Your task to perform on an android device: open device folders in google photos Image 0: 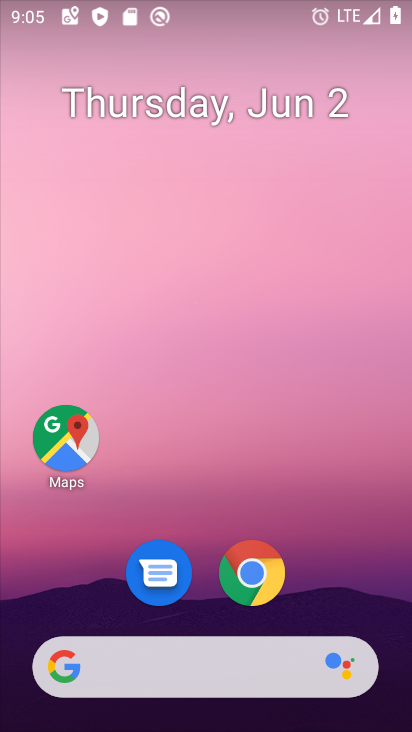
Step 0: press home button
Your task to perform on an android device: open device folders in google photos Image 1: 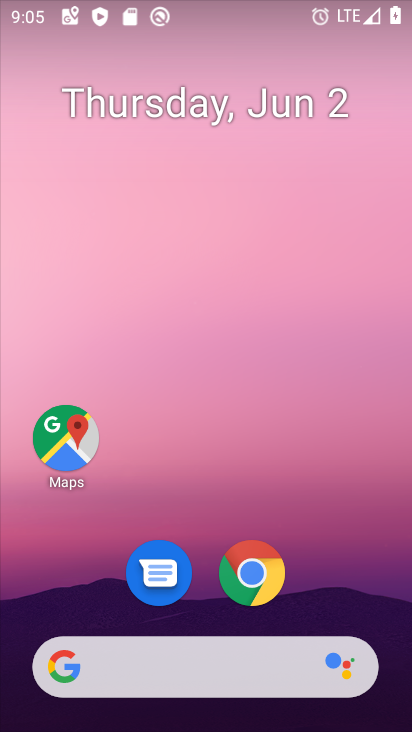
Step 1: drag from (311, 614) to (318, 133)
Your task to perform on an android device: open device folders in google photos Image 2: 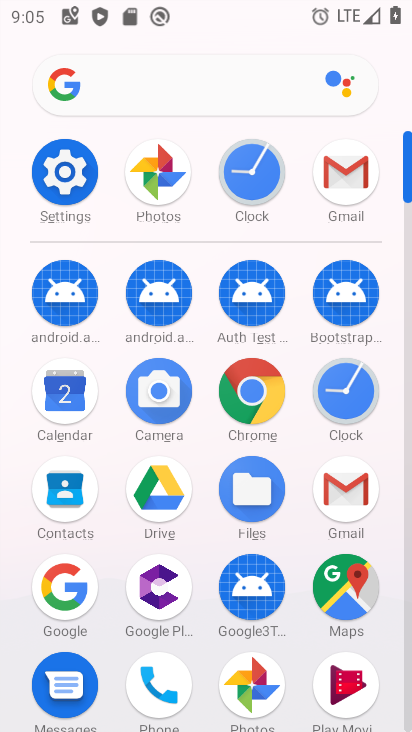
Step 2: click (135, 161)
Your task to perform on an android device: open device folders in google photos Image 3: 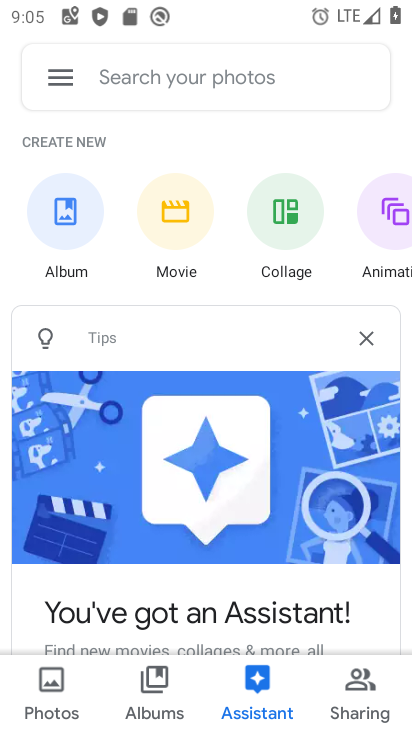
Step 3: click (59, 78)
Your task to perform on an android device: open device folders in google photos Image 4: 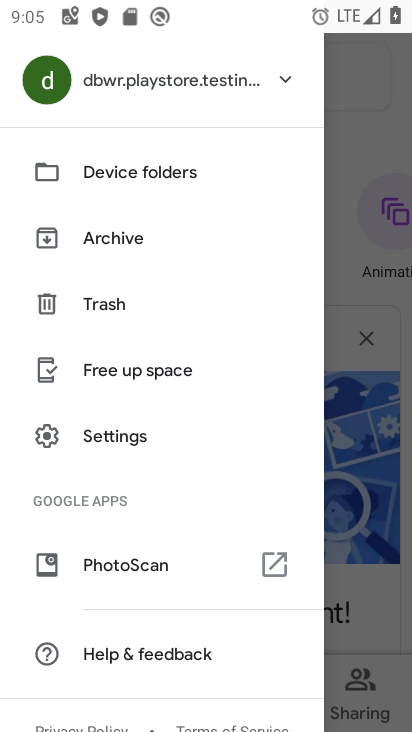
Step 4: click (116, 180)
Your task to perform on an android device: open device folders in google photos Image 5: 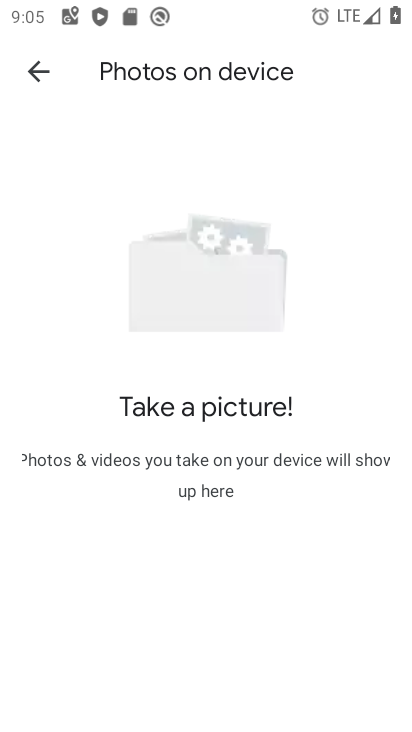
Step 5: task complete